Your task to perform on an android device: toggle javascript in the chrome app Image 0: 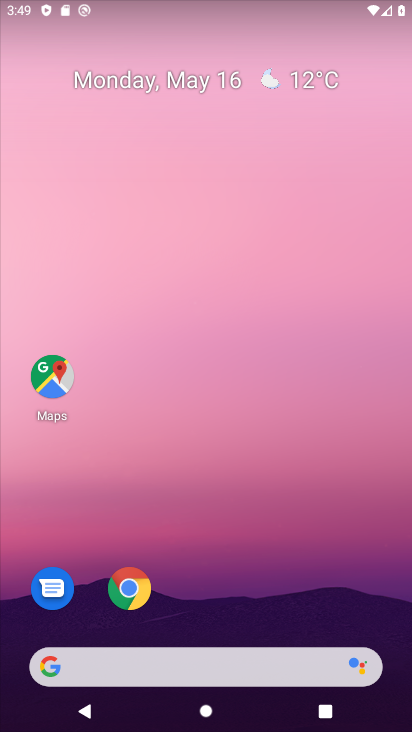
Step 0: click (136, 587)
Your task to perform on an android device: toggle javascript in the chrome app Image 1: 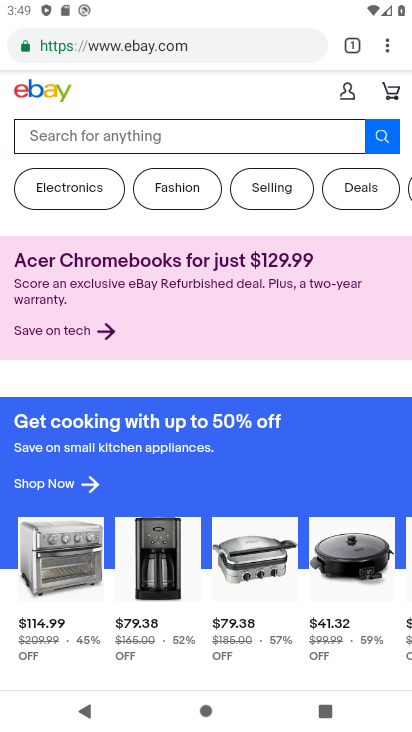
Step 1: click (382, 44)
Your task to perform on an android device: toggle javascript in the chrome app Image 2: 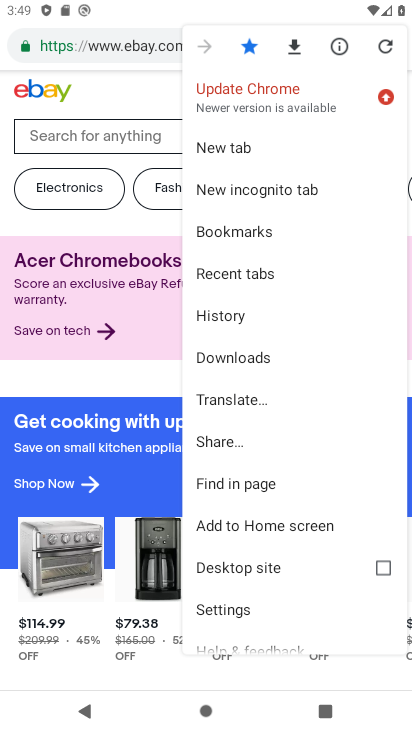
Step 2: drag from (286, 428) to (251, 160)
Your task to perform on an android device: toggle javascript in the chrome app Image 3: 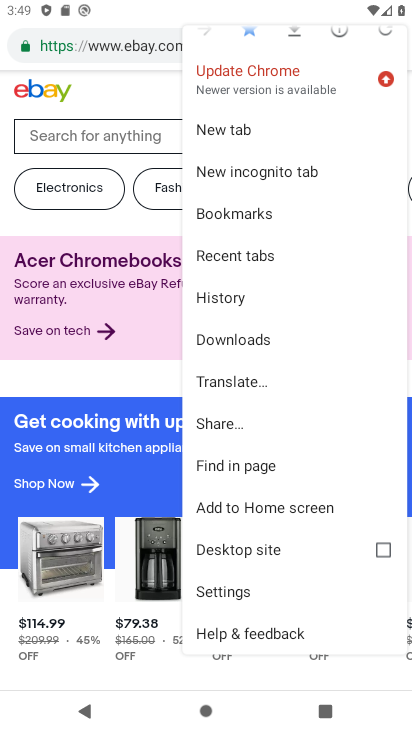
Step 3: click (265, 585)
Your task to perform on an android device: toggle javascript in the chrome app Image 4: 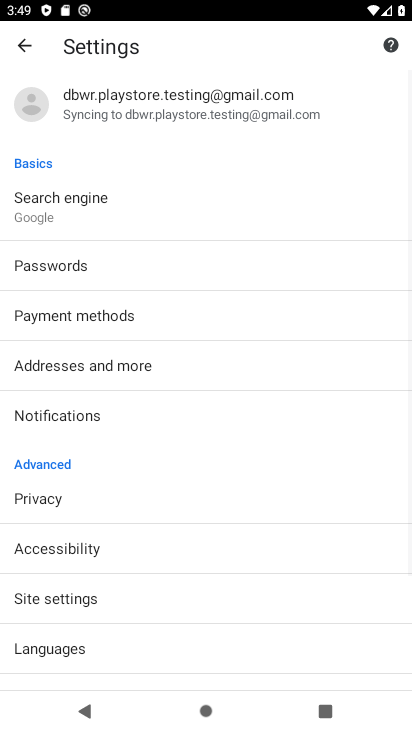
Step 4: drag from (225, 526) to (209, 410)
Your task to perform on an android device: toggle javascript in the chrome app Image 5: 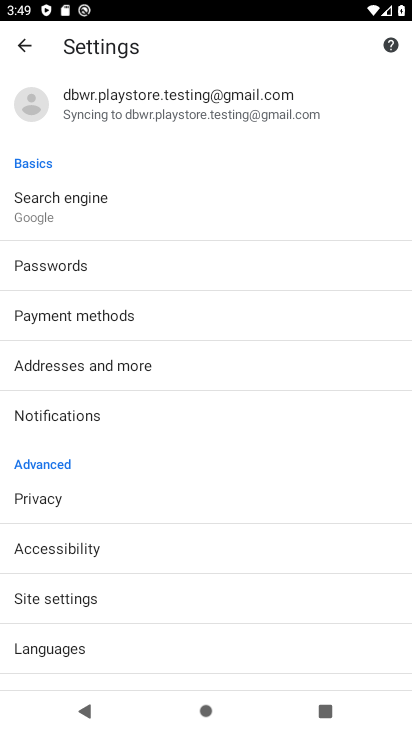
Step 5: drag from (201, 255) to (201, 181)
Your task to perform on an android device: toggle javascript in the chrome app Image 6: 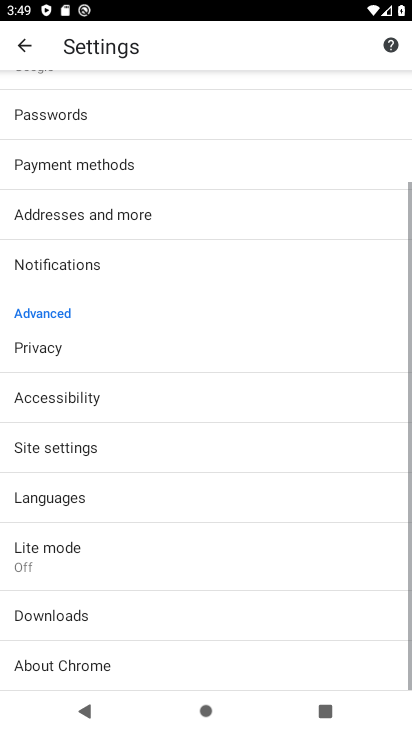
Step 6: drag from (172, 442) to (172, 352)
Your task to perform on an android device: toggle javascript in the chrome app Image 7: 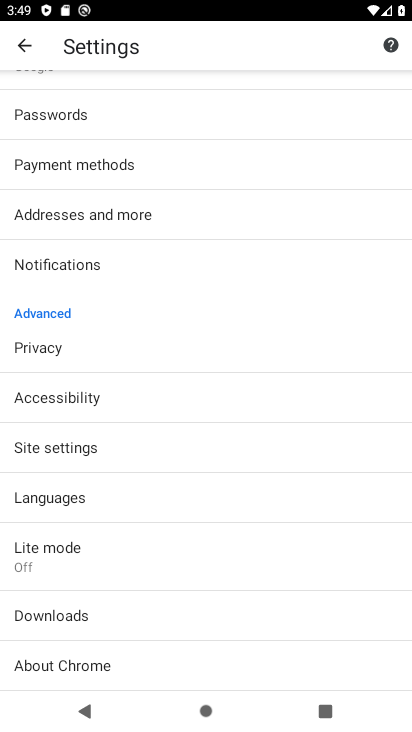
Step 7: click (162, 447)
Your task to perform on an android device: toggle javascript in the chrome app Image 8: 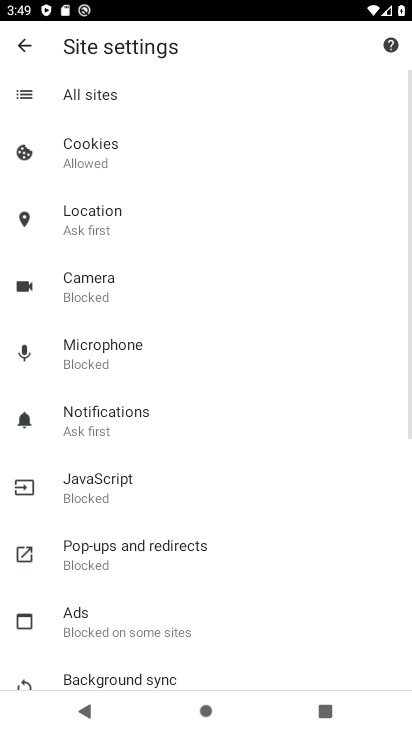
Step 8: drag from (158, 630) to (177, 268)
Your task to perform on an android device: toggle javascript in the chrome app Image 9: 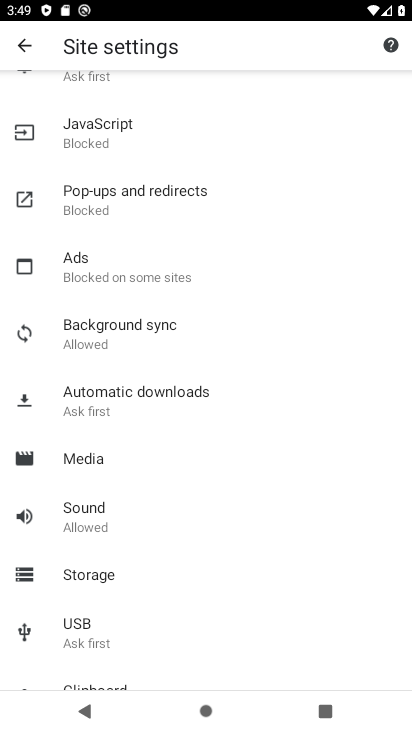
Step 9: click (173, 116)
Your task to perform on an android device: toggle javascript in the chrome app Image 10: 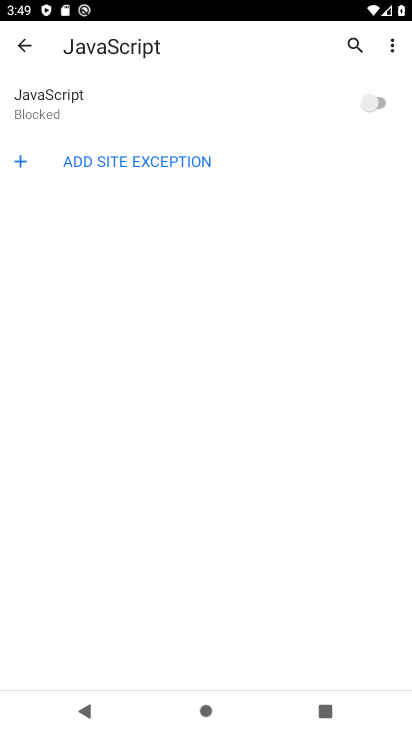
Step 10: click (365, 102)
Your task to perform on an android device: toggle javascript in the chrome app Image 11: 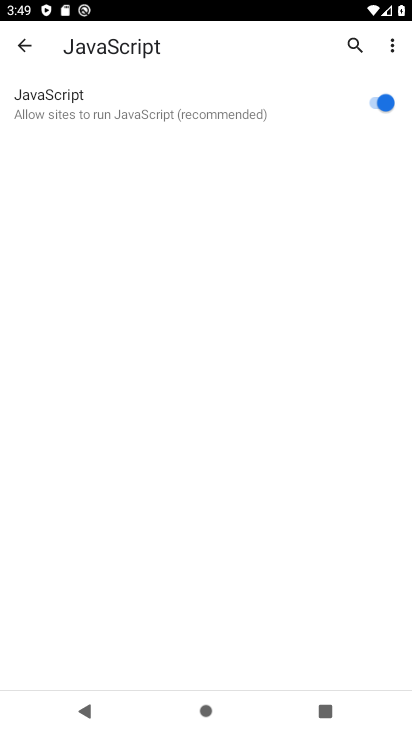
Step 11: task complete